Your task to perform on an android device: Go to Google maps Image 0: 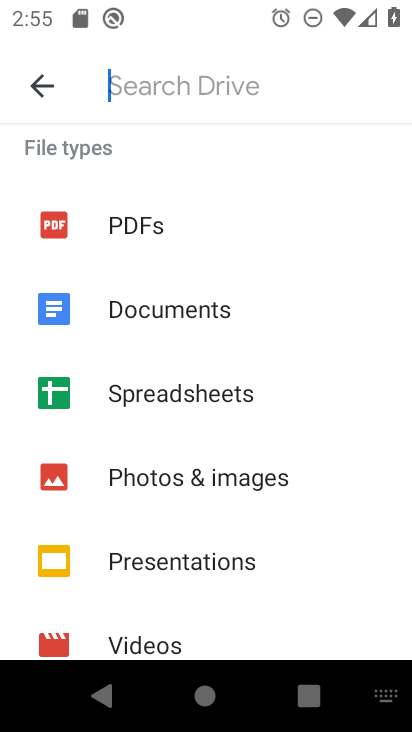
Step 0: press home button
Your task to perform on an android device: Go to Google maps Image 1: 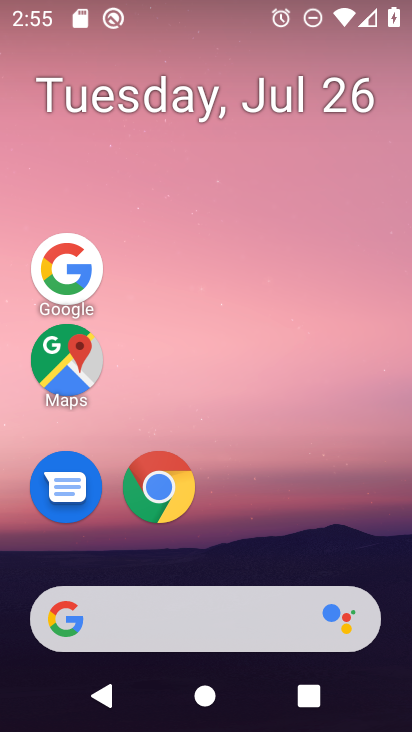
Step 1: drag from (226, 536) to (274, 171)
Your task to perform on an android device: Go to Google maps Image 2: 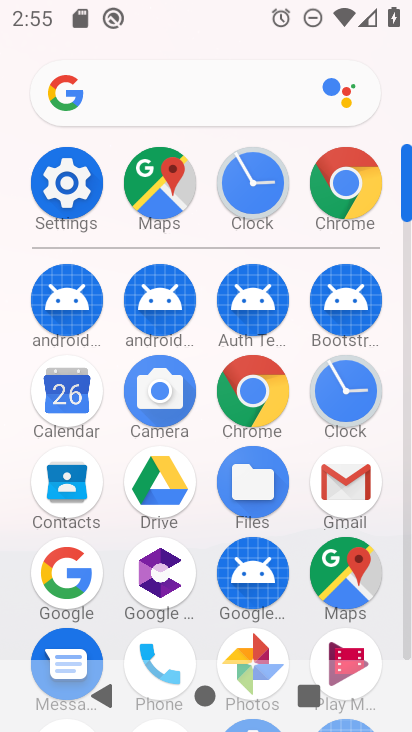
Step 2: click (355, 580)
Your task to perform on an android device: Go to Google maps Image 3: 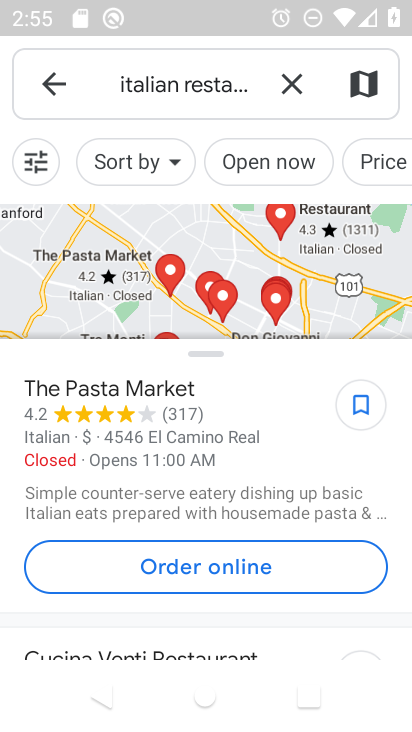
Step 3: task complete